Your task to perform on an android device: open a bookmark in the chrome app Image 0: 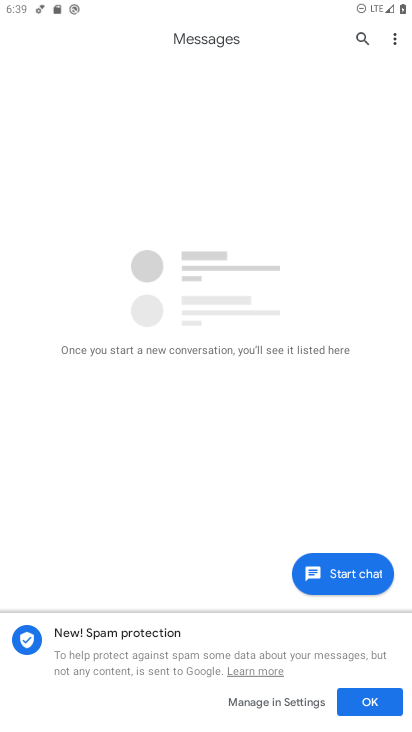
Step 0: press home button
Your task to perform on an android device: open a bookmark in the chrome app Image 1: 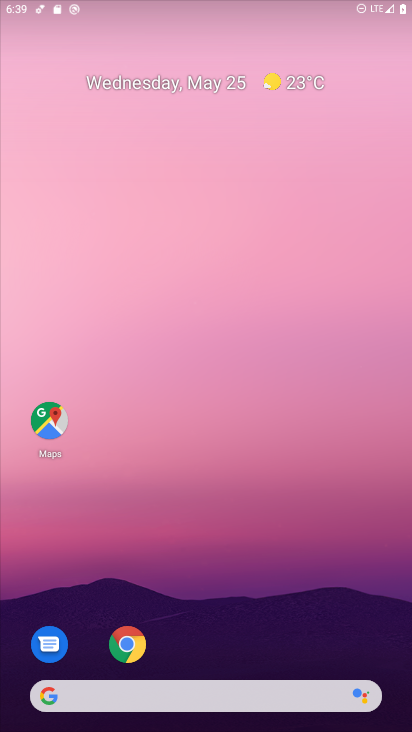
Step 1: drag from (366, 630) to (314, 65)
Your task to perform on an android device: open a bookmark in the chrome app Image 2: 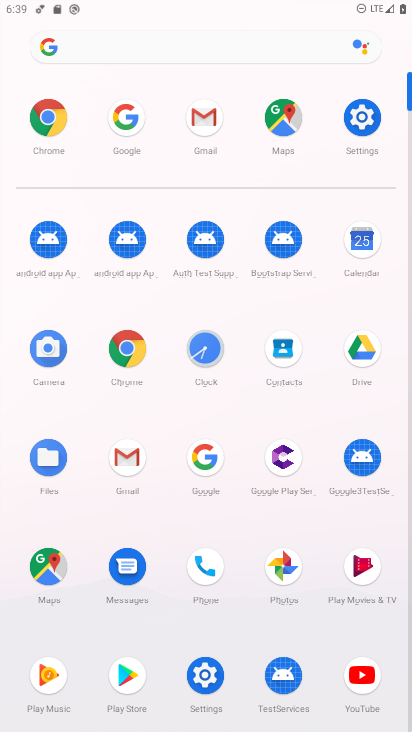
Step 2: click (33, 118)
Your task to perform on an android device: open a bookmark in the chrome app Image 3: 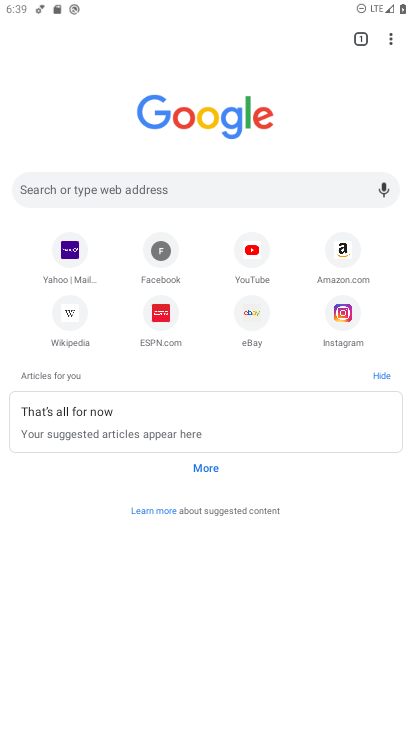
Step 3: click (393, 38)
Your task to perform on an android device: open a bookmark in the chrome app Image 4: 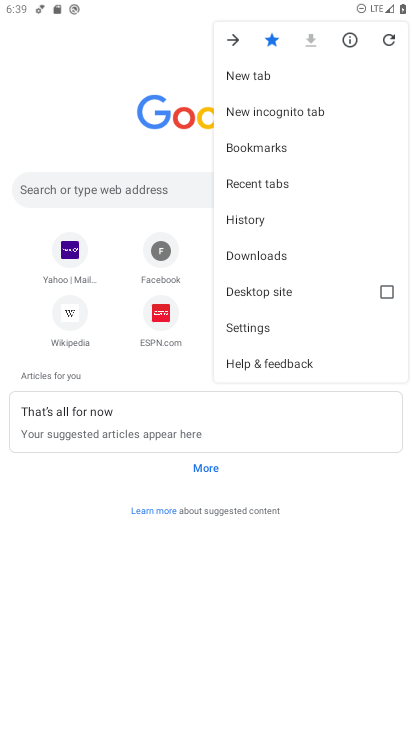
Step 4: click (301, 144)
Your task to perform on an android device: open a bookmark in the chrome app Image 5: 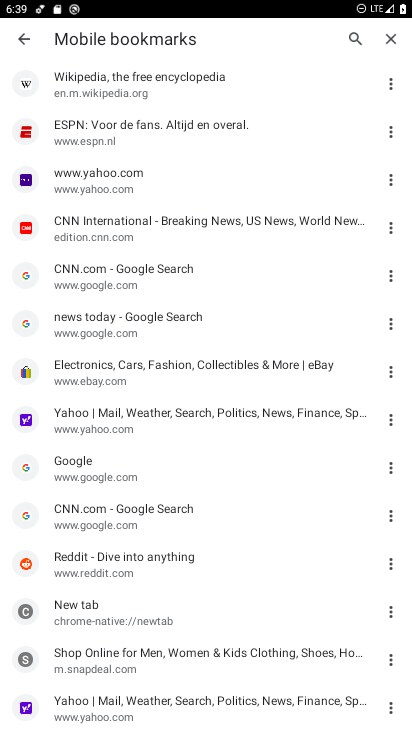
Step 5: task complete